Your task to perform on an android device: delete browsing data in the chrome app Image 0: 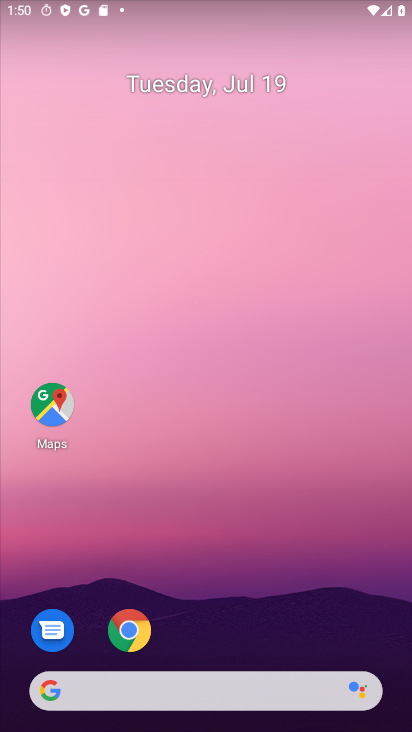
Step 0: click (129, 640)
Your task to perform on an android device: delete browsing data in the chrome app Image 1: 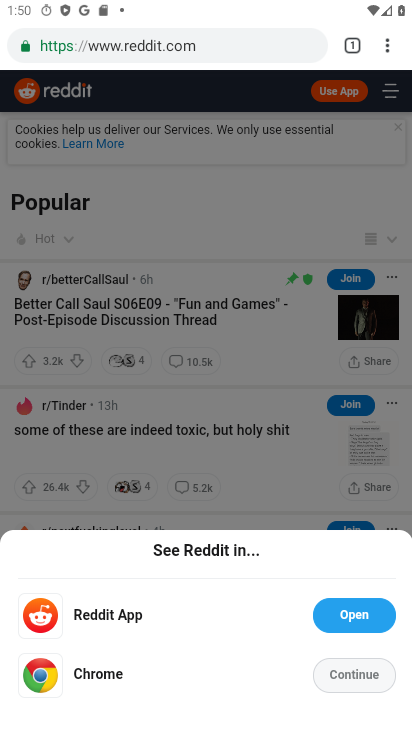
Step 1: click (388, 42)
Your task to perform on an android device: delete browsing data in the chrome app Image 2: 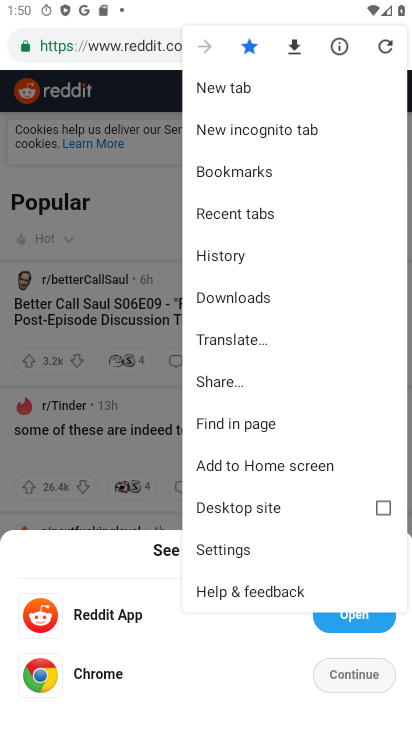
Step 2: click (227, 258)
Your task to perform on an android device: delete browsing data in the chrome app Image 3: 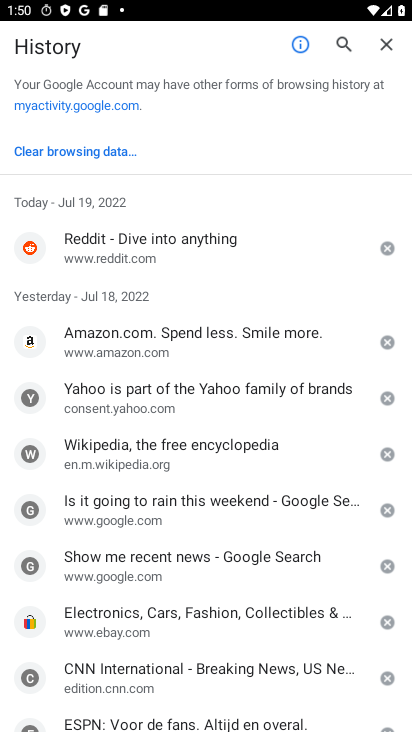
Step 3: click (85, 145)
Your task to perform on an android device: delete browsing data in the chrome app Image 4: 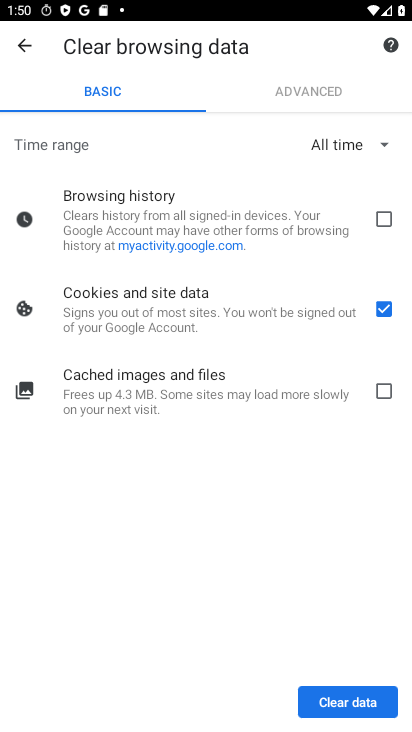
Step 4: click (396, 398)
Your task to perform on an android device: delete browsing data in the chrome app Image 5: 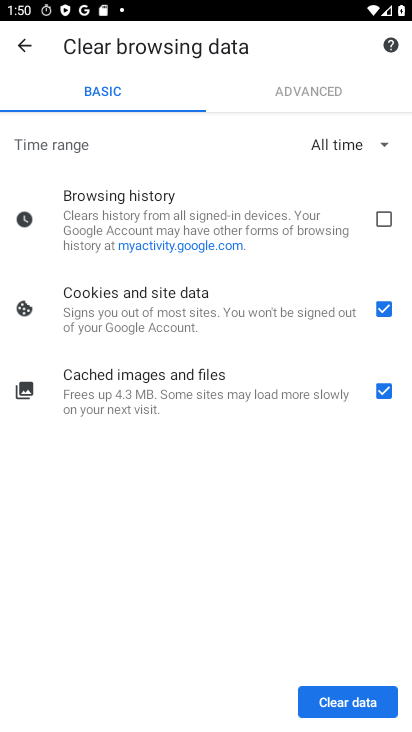
Step 5: click (386, 226)
Your task to perform on an android device: delete browsing data in the chrome app Image 6: 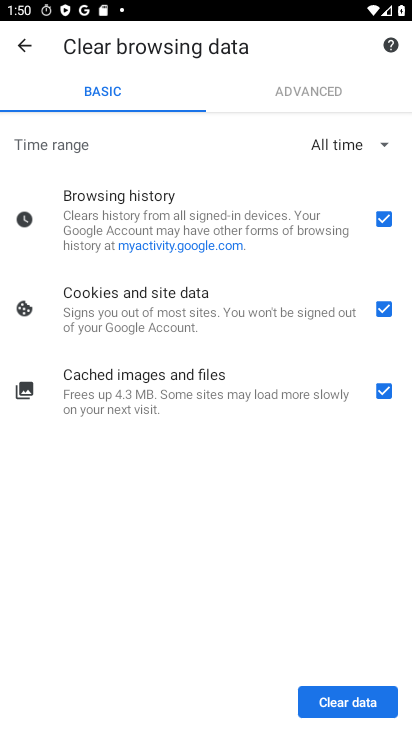
Step 6: click (345, 693)
Your task to perform on an android device: delete browsing data in the chrome app Image 7: 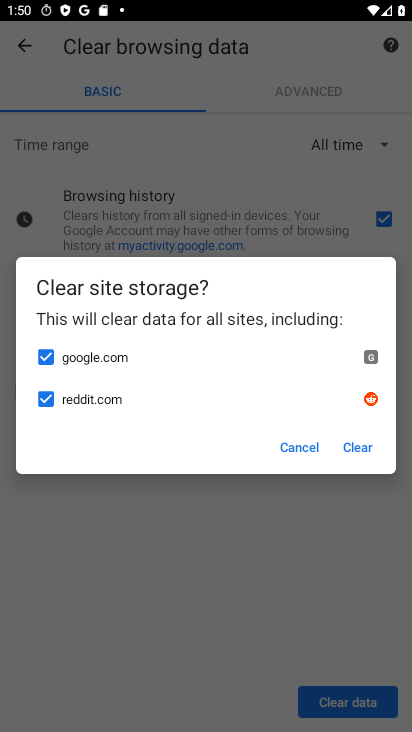
Step 7: click (363, 457)
Your task to perform on an android device: delete browsing data in the chrome app Image 8: 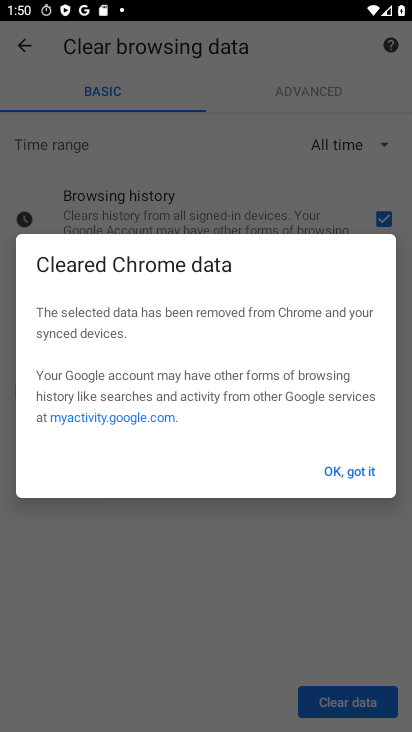
Step 8: task complete